Your task to perform on an android device: Search for seafood restaurants on Google Maps Image 0: 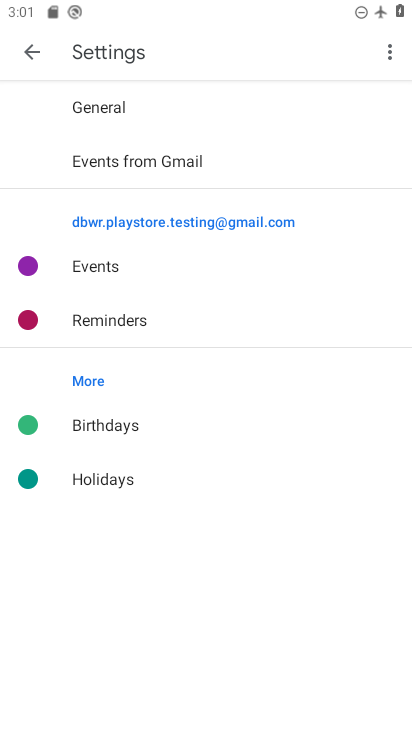
Step 0: press home button
Your task to perform on an android device: Search for seafood restaurants on Google Maps Image 1: 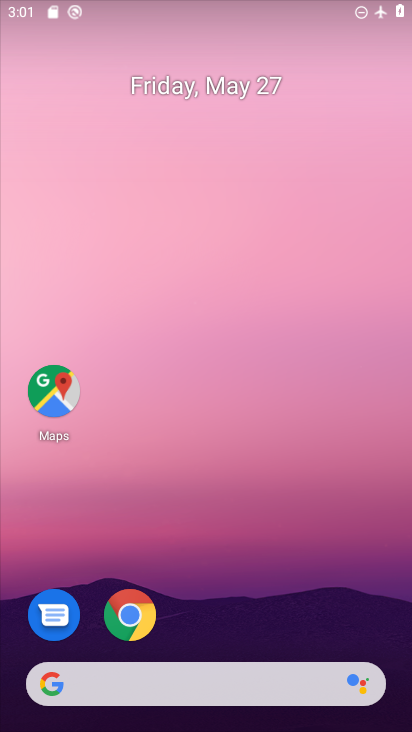
Step 1: click (64, 393)
Your task to perform on an android device: Search for seafood restaurants on Google Maps Image 2: 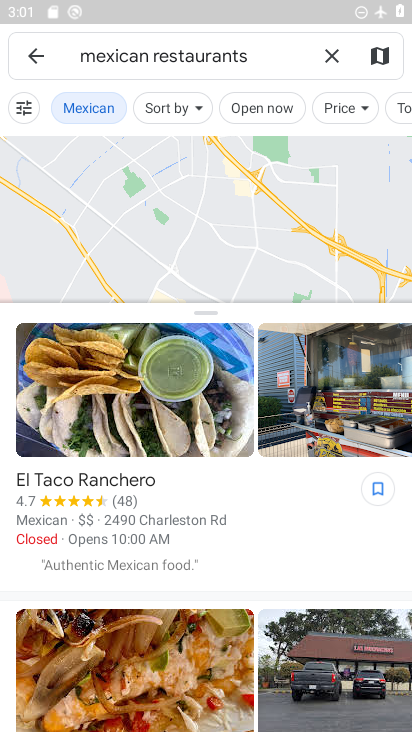
Step 2: click (331, 55)
Your task to perform on an android device: Search for seafood restaurants on Google Maps Image 3: 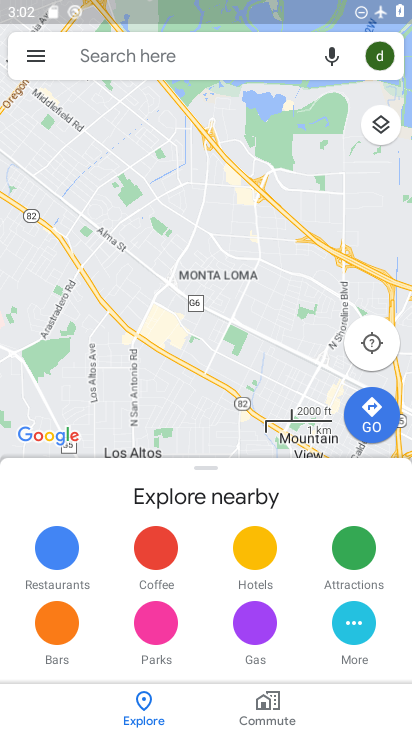
Step 3: click (170, 55)
Your task to perform on an android device: Search for seafood restaurants on Google Maps Image 4: 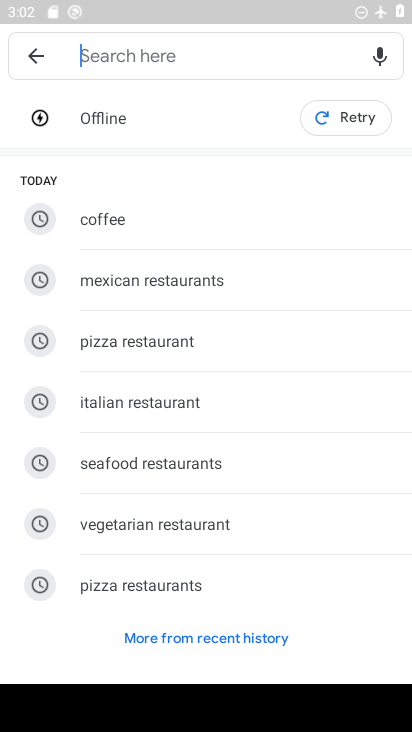
Step 4: click (170, 474)
Your task to perform on an android device: Search for seafood restaurants on Google Maps Image 5: 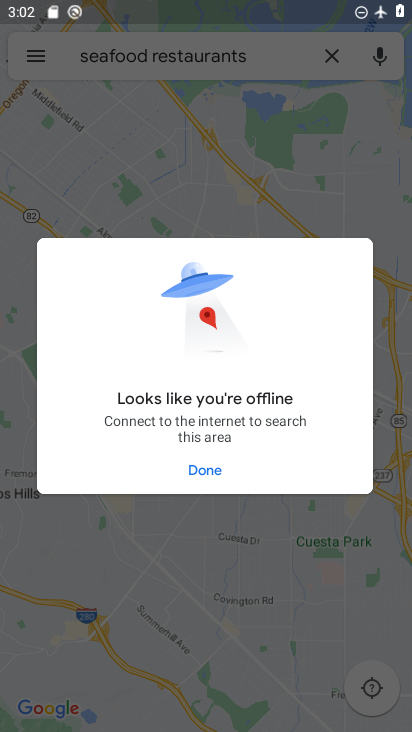
Step 5: click (204, 468)
Your task to perform on an android device: Search for seafood restaurants on Google Maps Image 6: 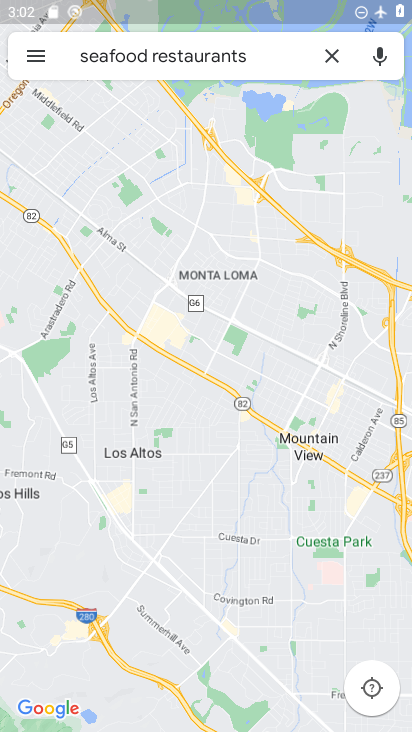
Step 6: task complete